Your task to perform on an android device: What is the recent news? Image 0: 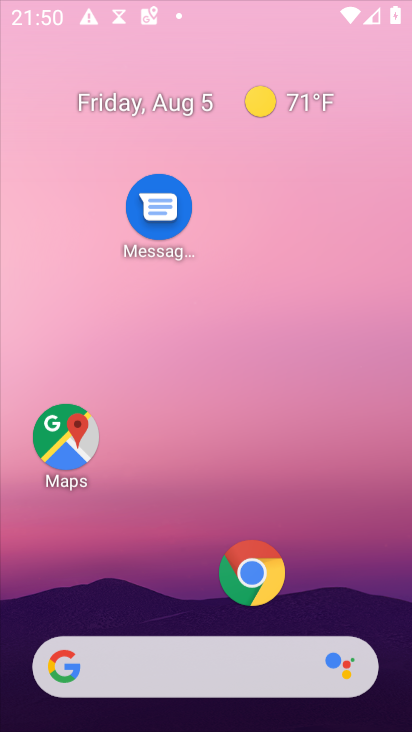
Step 0: press home button
Your task to perform on an android device: What is the recent news? Image 1: 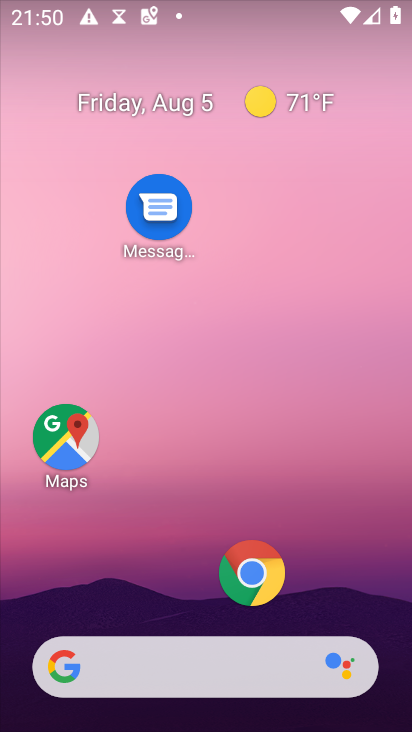
Step 1: task complete